Your task to perform on an android device: uninstall "Google Find My Device" Image 0: 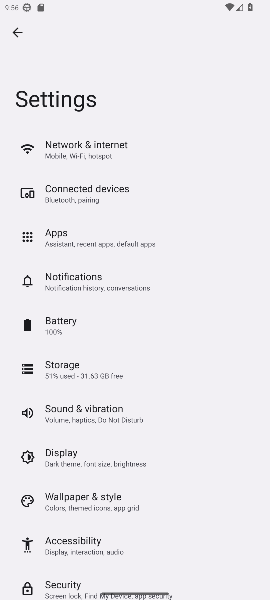
Step 0: press home button
Your task to perform on an android device: uninstall "Google Find My Device" Image 1: 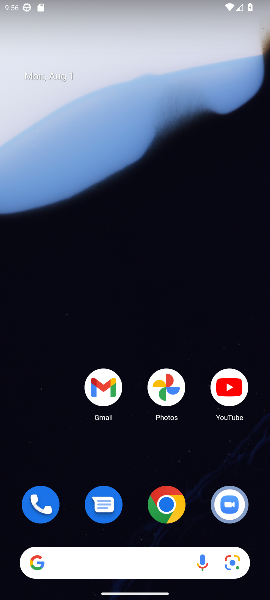
Step 1: drag from (136, 471) to (202, 6)
Your task to perform on an android device: uninstall "Google Find My Device" Image 2: 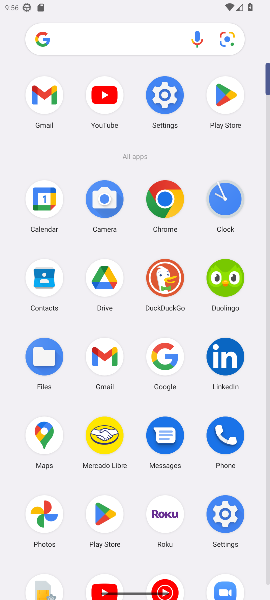
Step 2: click (224, 87)
Your task to perform on an android device: uninstall "Google Find My Device" Image 3: 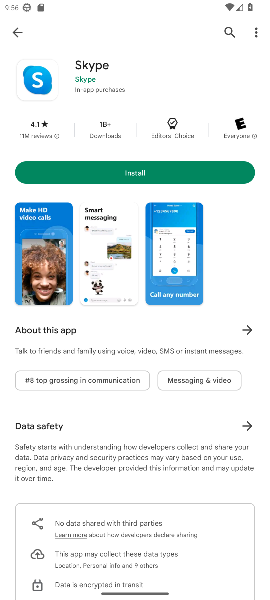
Step 3: click (228, 26)
Your task to perform on an android device: uninstall "Google Find My Device" Image 4: 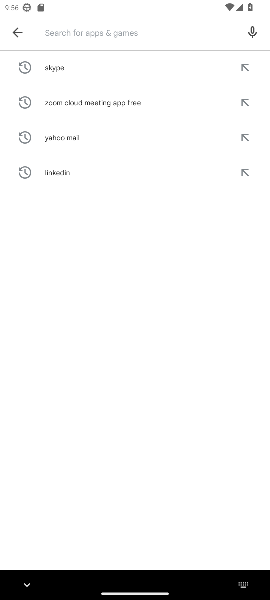
Step 4: type "google find my device"
Your task to perform on an android device: uninstall "Google Find My Device" Image 5: 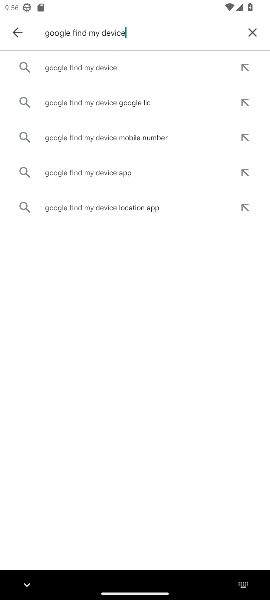
Step 5: click (124, 61)
Your task to perform on an android device: uninstall "Google Find My Device" Image 6: 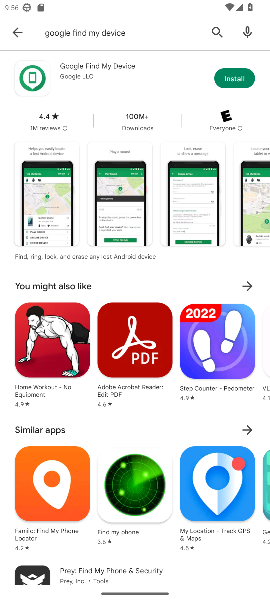
Step 6: click (128, 61)
Your task to perform on an android device: uninstall "Google Find My Device" Image 7: 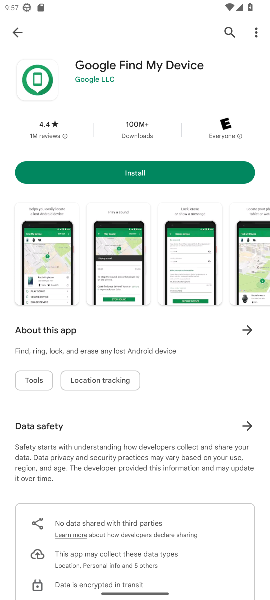
Step 7: task complete